Your task to perform on an android device: change the clock display to analog Image 0: 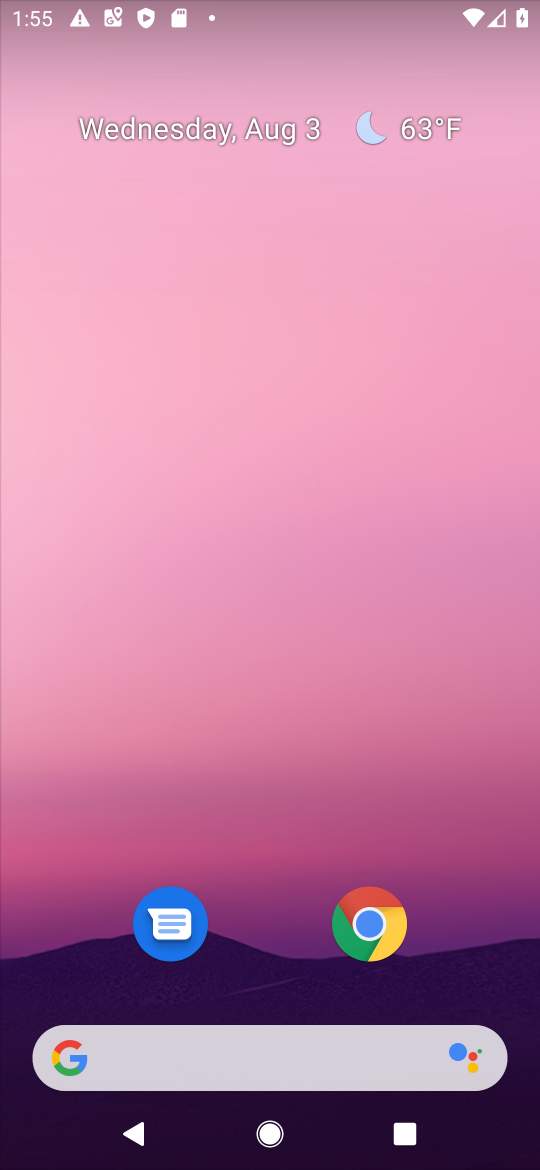
Step 0: drag from (271, 984) to (278, 71)
Your task to perform on an android device: change the clock display to analog Image 1: 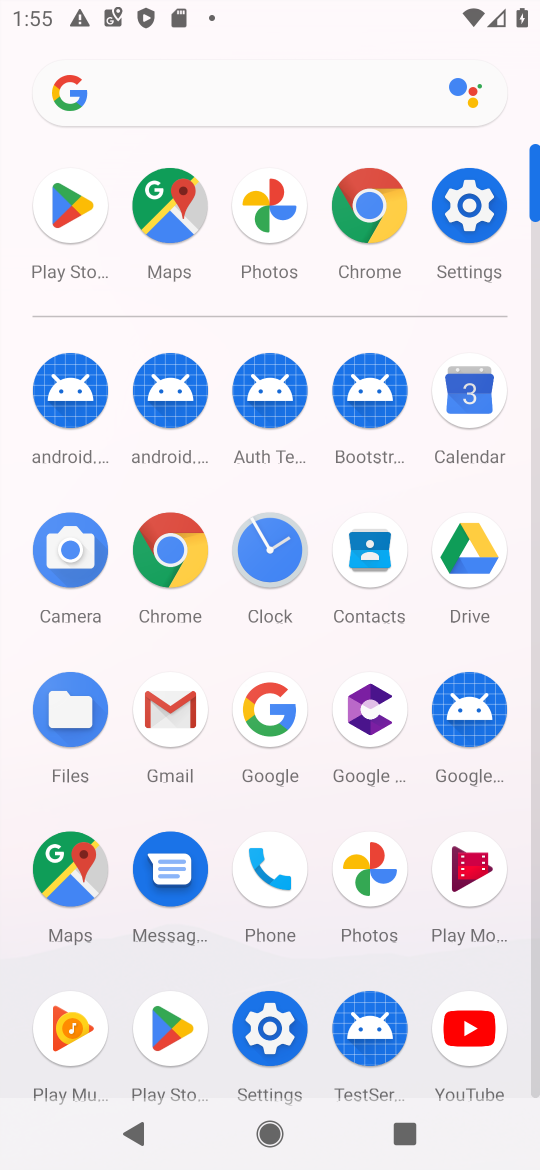
Step 1: click (265, 534)
Your task to perform on an android device: change the clock display to analog Image 2: 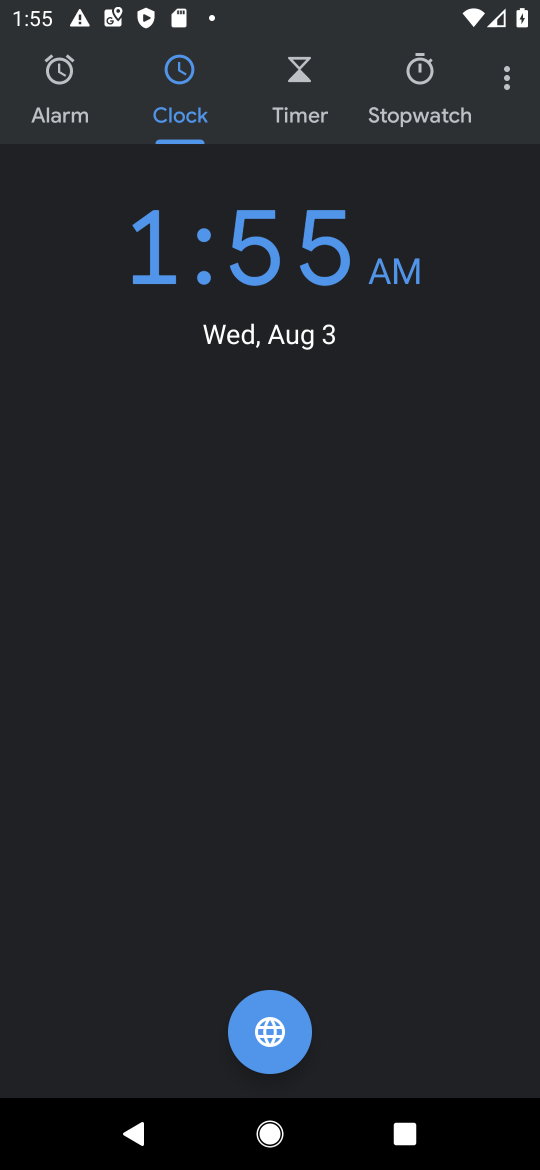
Step 2: click (504, 78)
Your task to perform on an android device: change the clock display to analog Image 3: 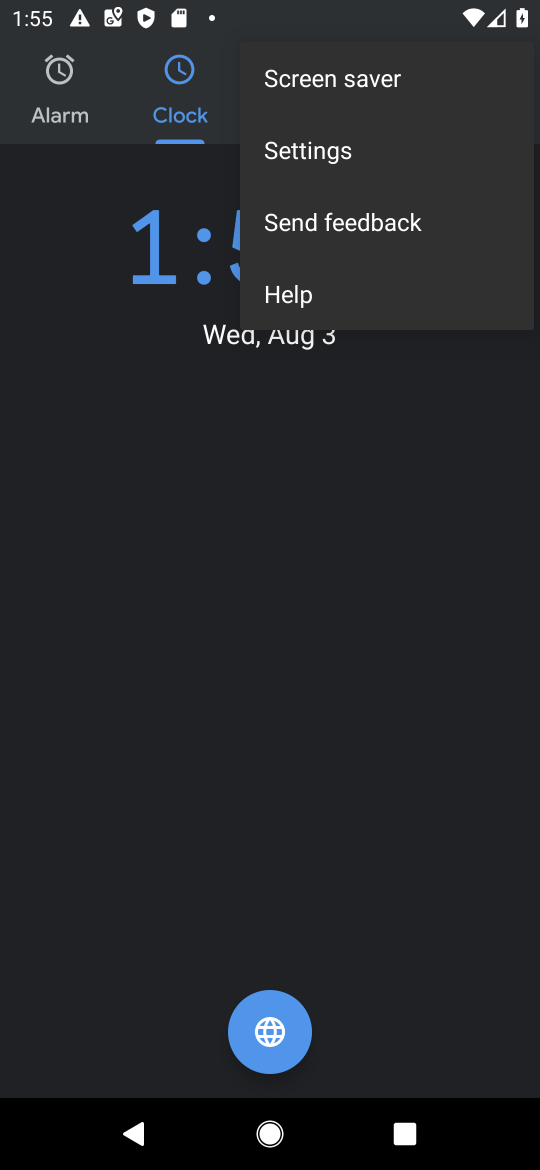
Step 3: click (362, 153)
Your task to perform on an android device: change the clock display to analog Image 4: 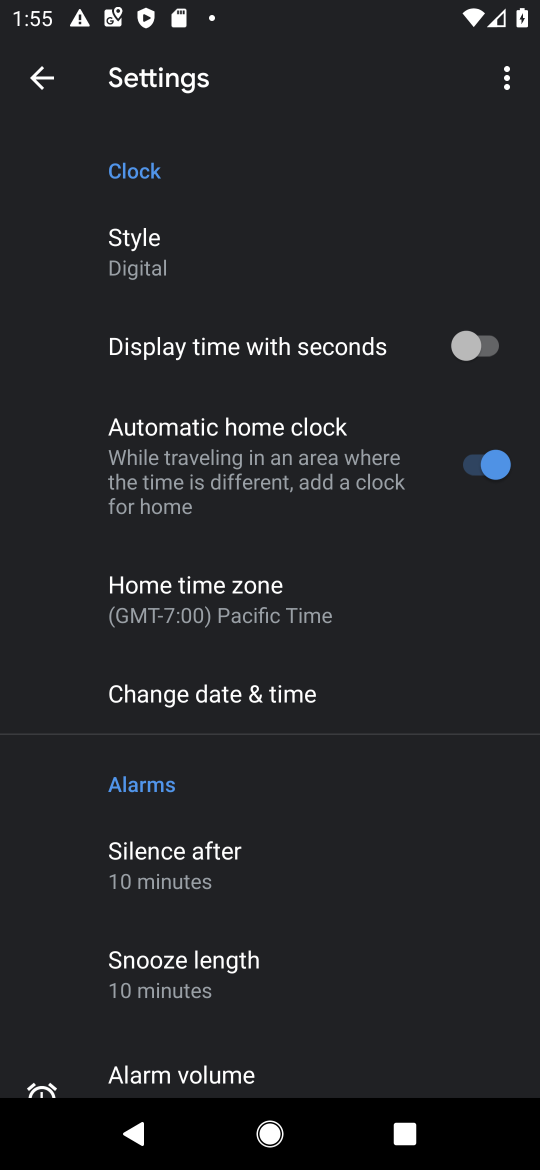
Step 4: click (185, 247)
Your task to perform on an android device: change the clock display to analog Image 5: 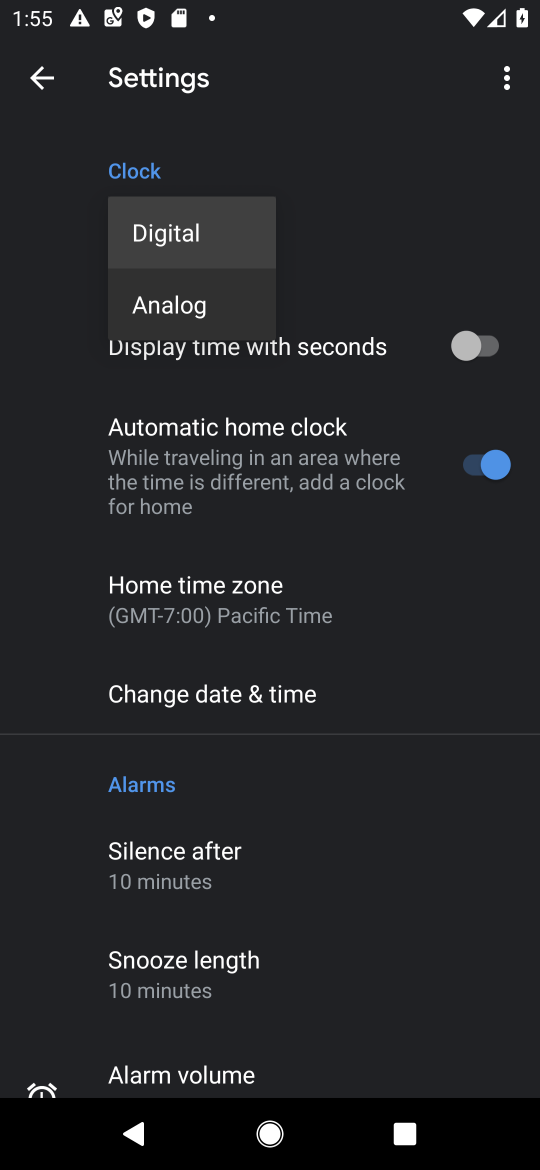
Step 5: click (201, 288)
Your task to perform on an android device: change the clock display to analog Image 6: 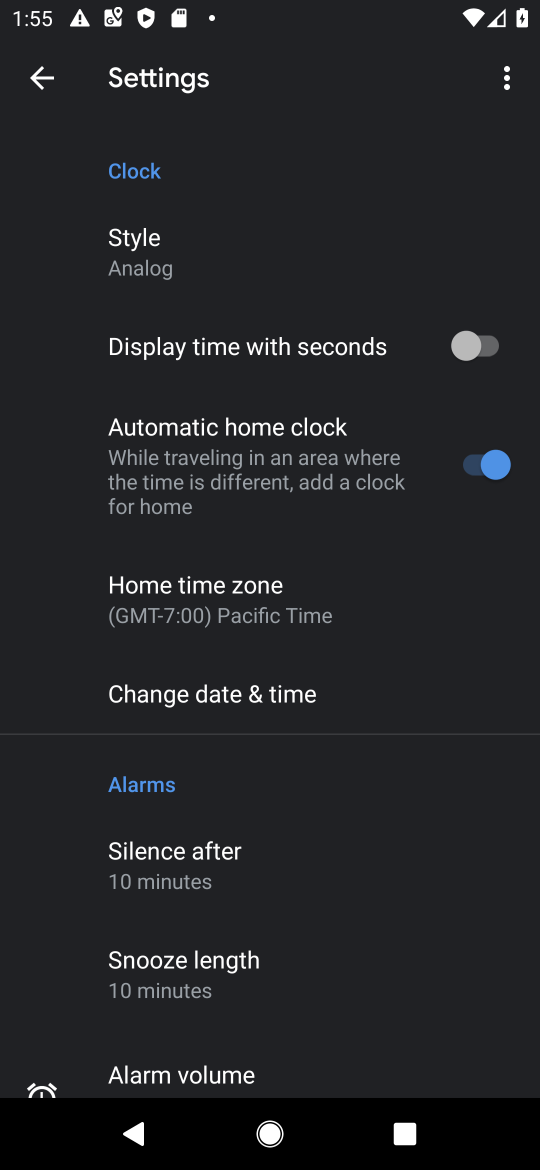
Step 6: task complete